Your task to perform on an android device: toggle data saver in the chrome app Image 0: 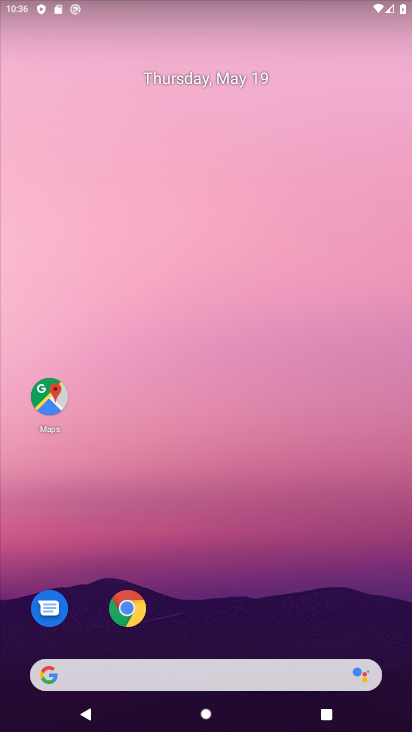
Step 0: click (137, 604)
Your task to perform on an android device: toggle data saver in the chrome app Image 1: 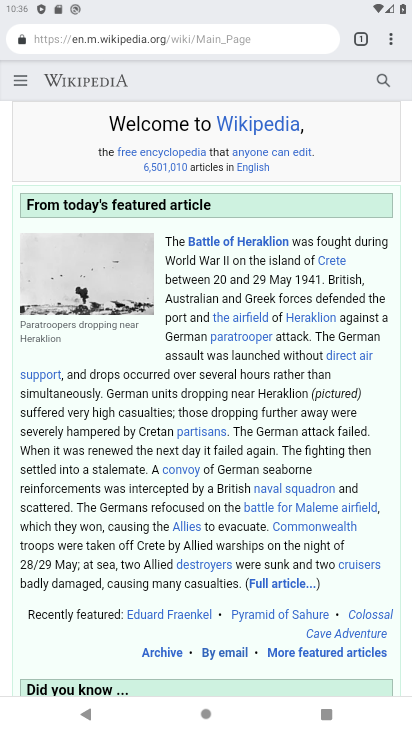
Step 1: click (389, 39)
Your task to perform on an android device: toggle data saver in the chrome app Image 2: 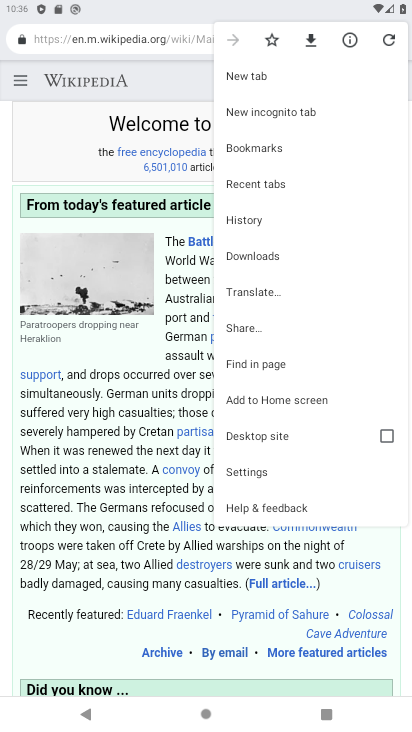
Step 2: click (260, 474)
Your task to perform on an android device: toggle data saver in the chrome app Image 3: 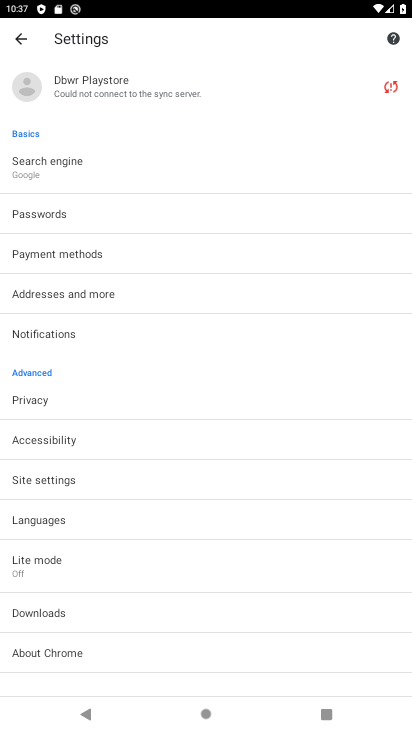
Step 3: click (114, 556)
Your task to perform on an android device: toggle data saver in the chrome app Image 4: 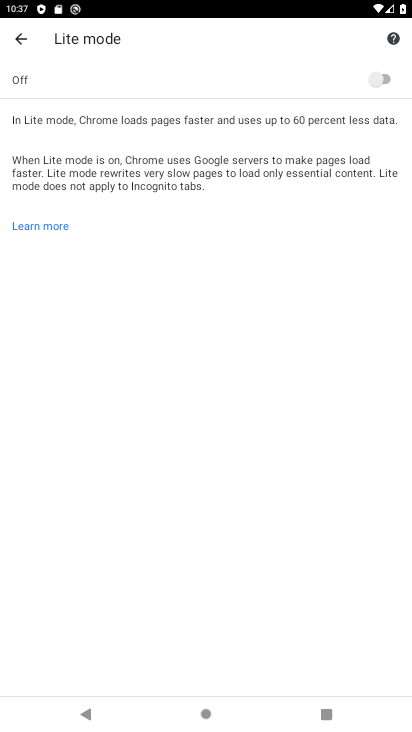
Step 4: click (384, 76)
Your task to perform on an android device: toggle data saver in the chrome app Image 5: 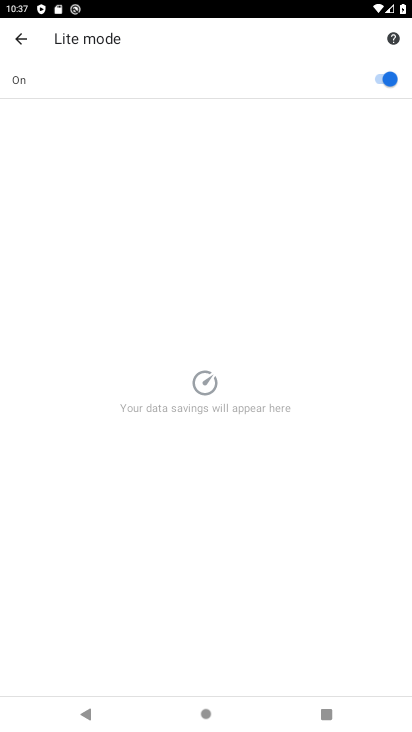
Step 5: task complete